Your task to perform on an android device: Go to Reddit.com Image 0: 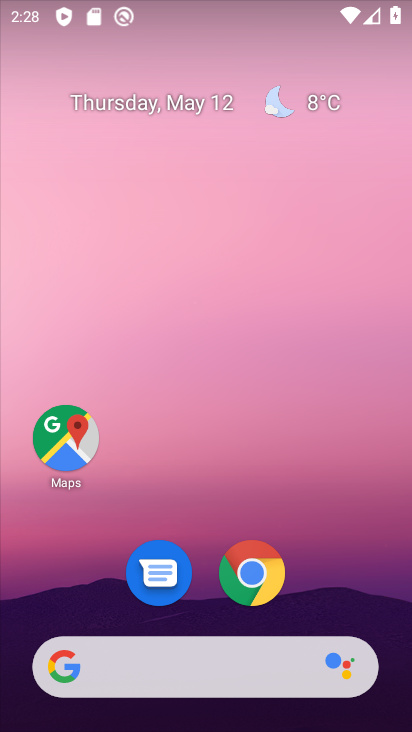
Step 0: click (276, 562)
Your task to perform on an android device: Go to Reddit.com Image 1: 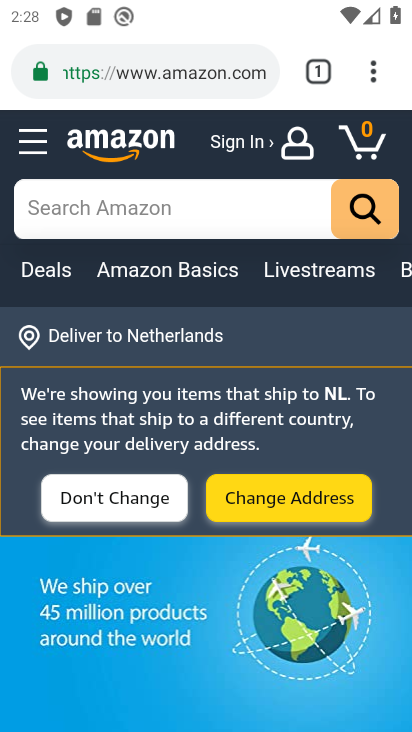
Step 1: click (146, 65)
Your task to perform on an android device: Go to Reddit.com Image 2: 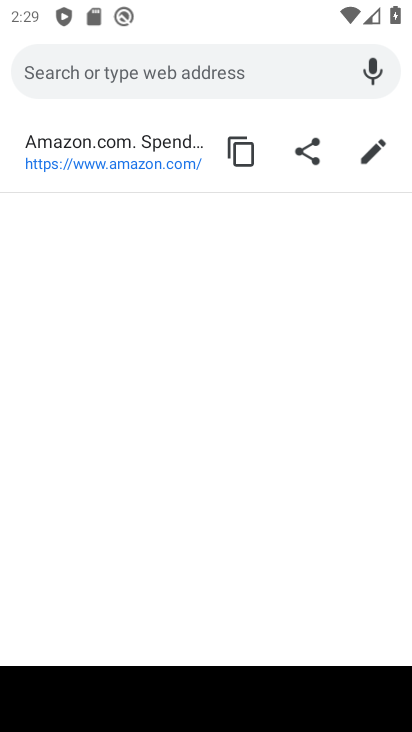
Step 2: type " Reddit.com"
Your task to perform on an android device: Go to Reddit.com Image 3: 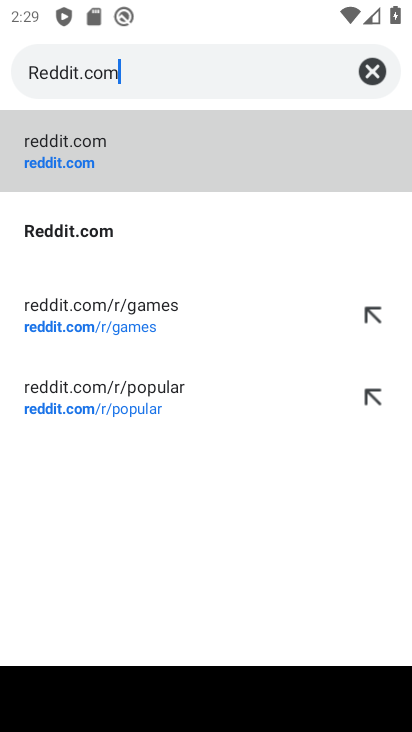
Step 3: click (57, 163)
Your task to perform on an android device: Go to Reddit.com Image 4: 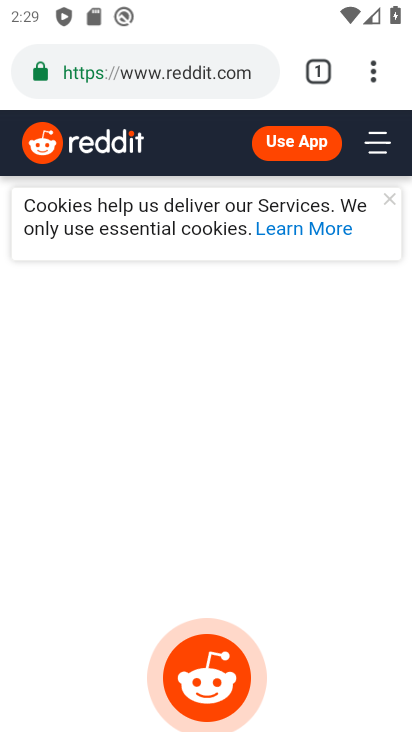
Step 4: task complete